Your task to perform on an android device: turn on the 12-hour format for clock Image 0: 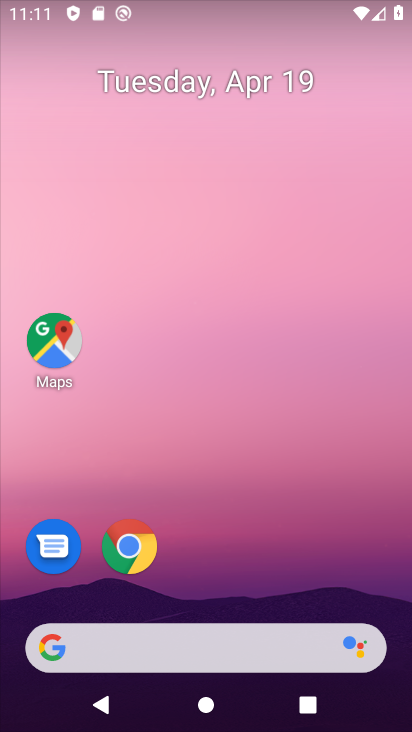
Step 0: drag from (266, 475) to (405, 31)
Your task to perform on an android device: turn on the 12-hour format for clock Image 1: 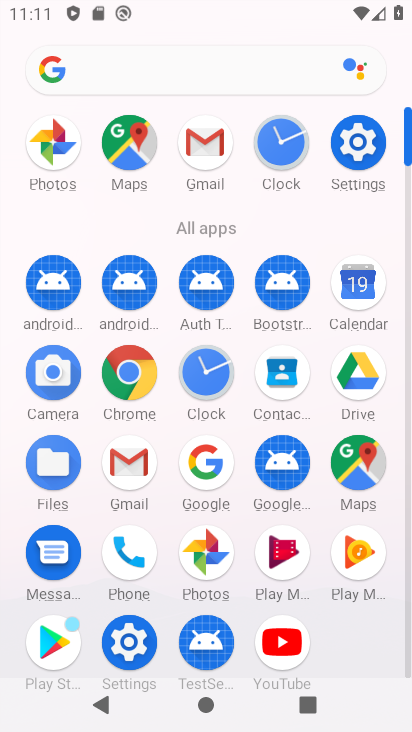
Step 1: click (220, 371)
Your task to perform on an android device: turn on the 12-hour format for clock Image 2: 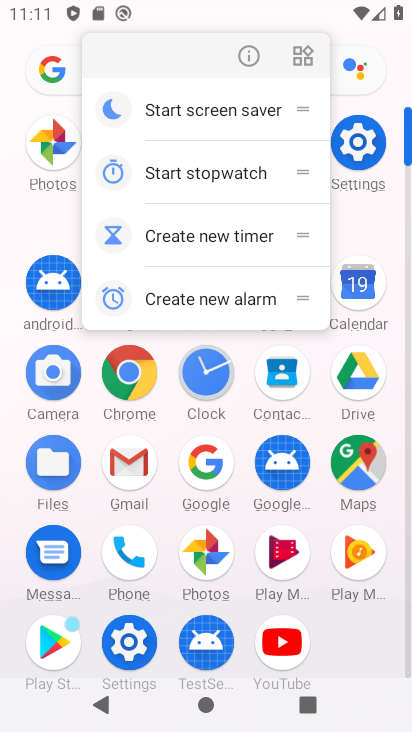
Step 2: click (220, 371)
Your task to perform on an android device: turn on the 12-hour format for clock Image 3: 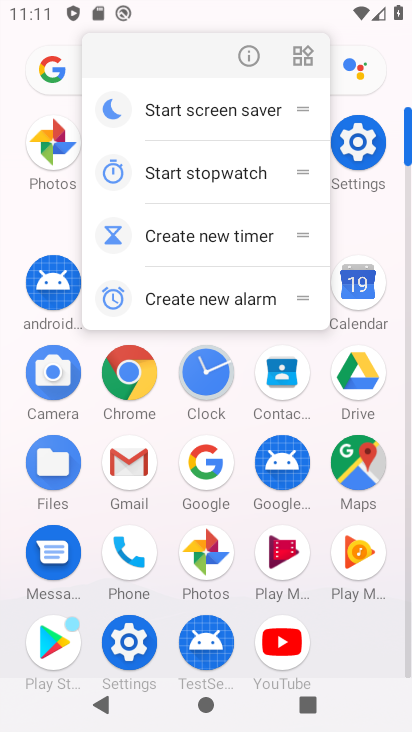
Step 3: click (234, 372)
Your task to perform on an android device: turn on the 12-hour format for clock Image 4: 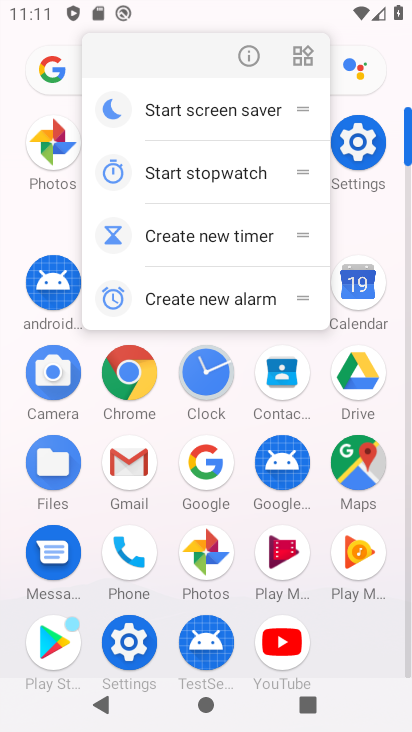
Step 4: click (218, 372)
Your task to perform on an android device: turn on the 12-hour format for clock Image 5: 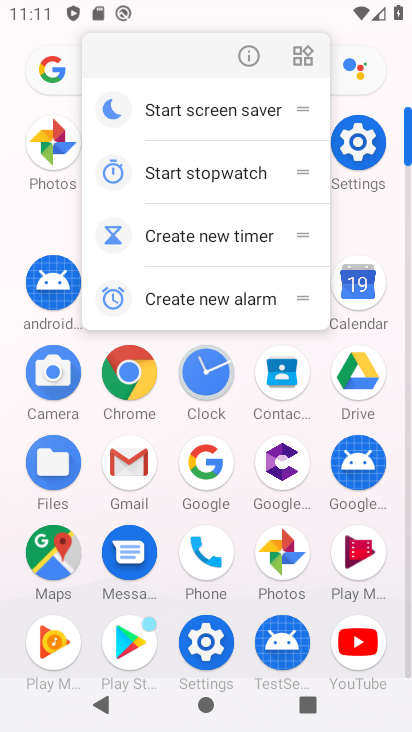
Step 5: click (225, 372)
Your task to perform on an android device: turn on the 12-hour format for clock Image 6: 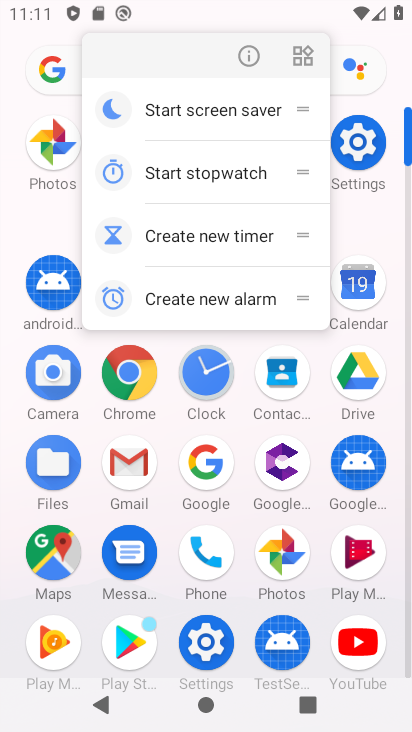
Step 6: click (207, 377)
Your task to perform on an android device: turn on the 12-hour format for clock Image 7: 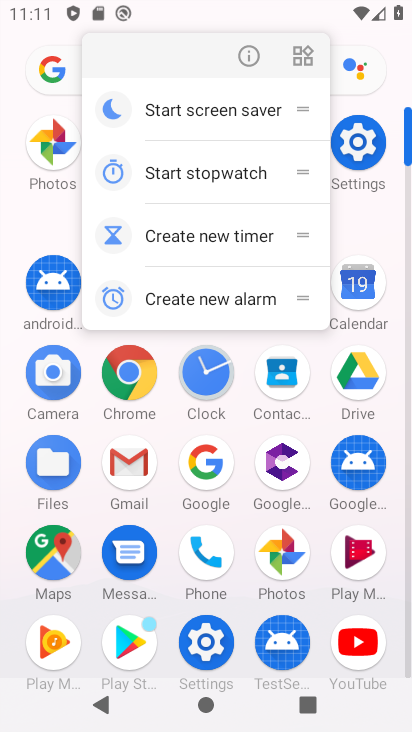
Step 7: click (206, 376)
Your task to perform on an android device: turn on the 12-hour format for clock Image 8: 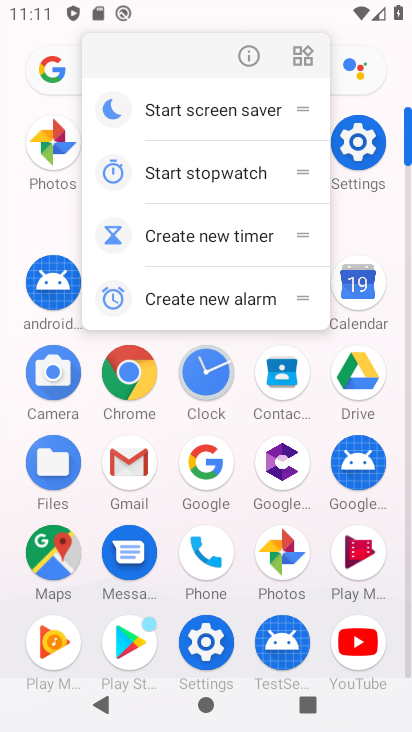
Step 8: click (205, 373)
Your task to perform on an android device: turn on the 12-hour format for clock Image 9: 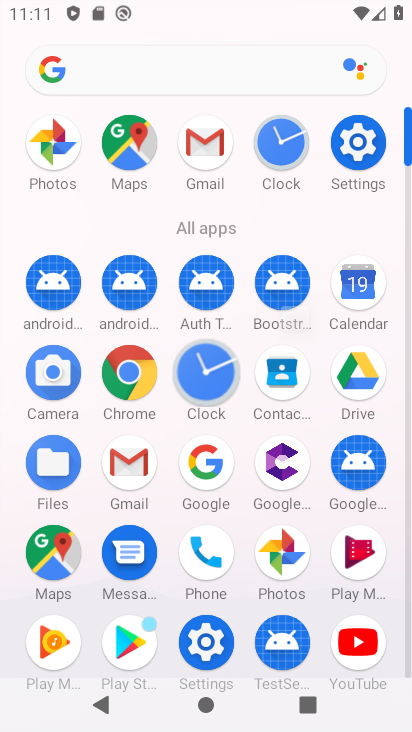
Step 9: click (205, 374)
Your task to perform on an android device: turn on the 12-hour format for clock Image 10: 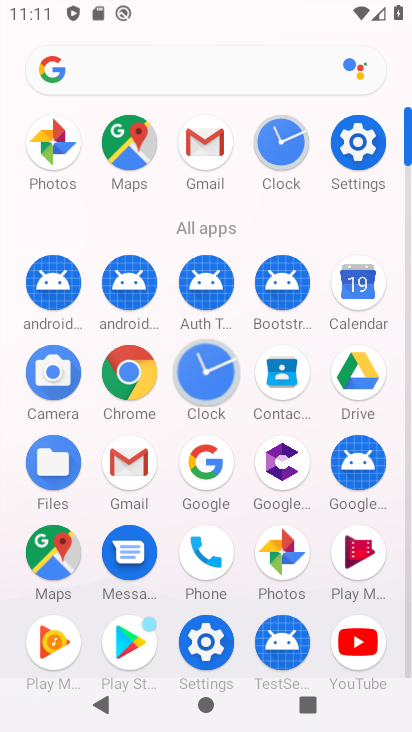
Step 10: click (203, 385)
Your task to perform on an android device: turn on the 12-hour format for clock Image 11: 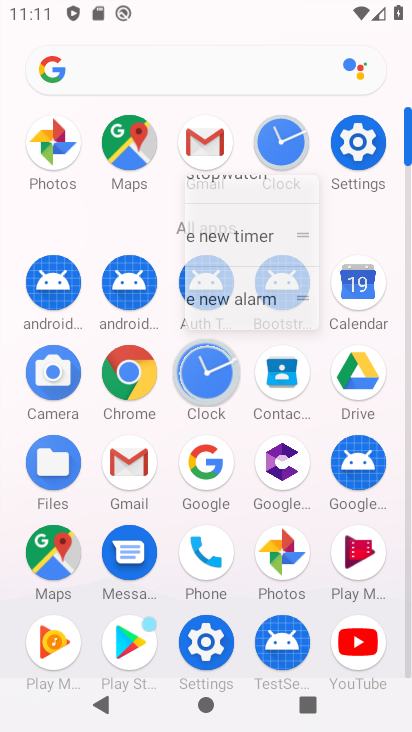
Step 11: click (203, 398)
Your task to perform on an android device: turn on the 12-hour format for clock Image 12: 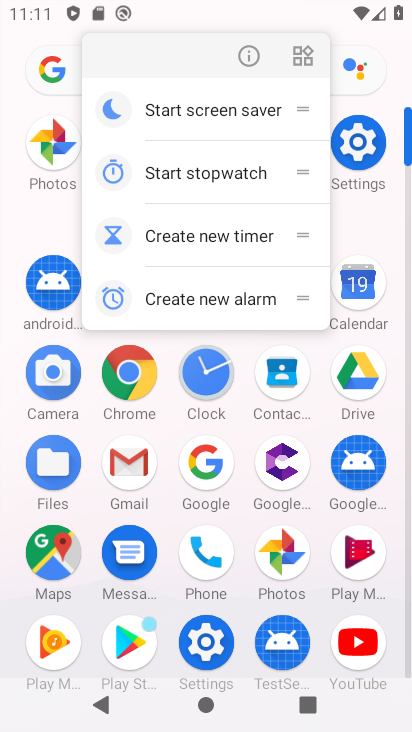
Step 12: click (203, 398)
Your task to perform on an android device: turn on the 12-hour format for clock Image 13: 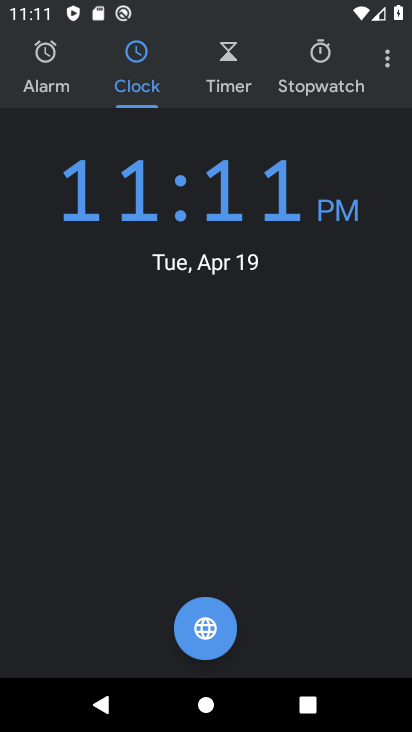
Step 13: click (388, 59)
Your task to perform on an android device: turn on the 12-hour format for clock Image 14: 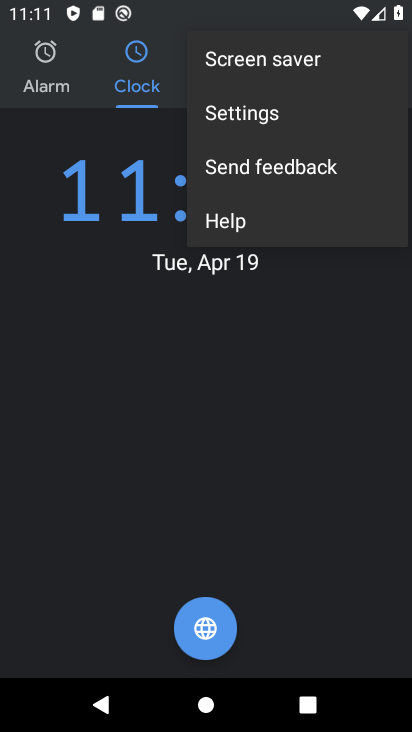
Step 14: click (327, 112)
Your task to perform on an android device: turn on the 12-hour format for clock Image 15: 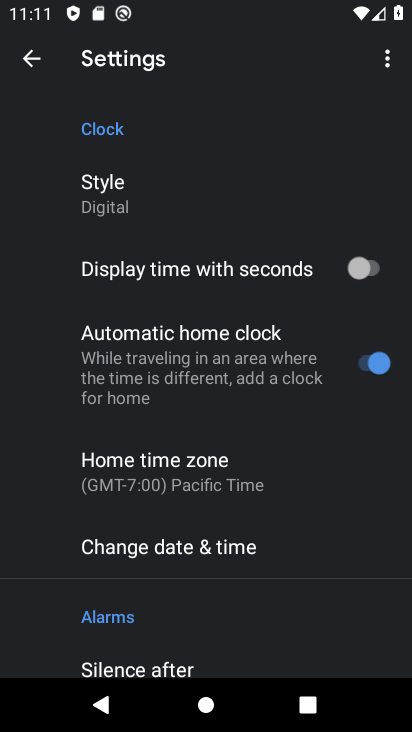
Step 15: click (293, 556)
Your task to perform on an android device: turn on the 12-hour format for clock Image 16: 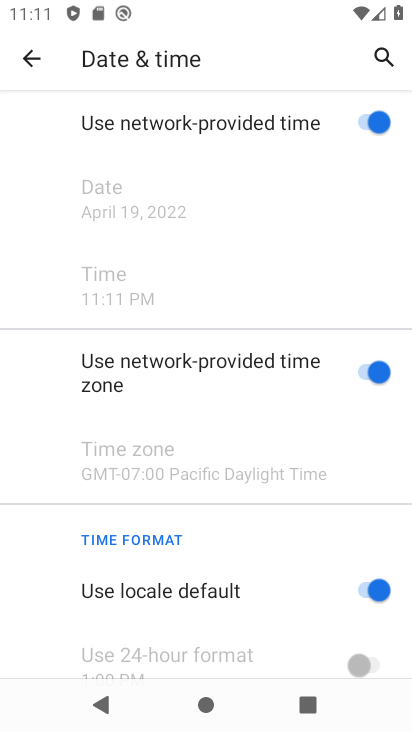
Step 16: task complete